Your task to perform on an android device: Open Chrome and go to settings Image 0: 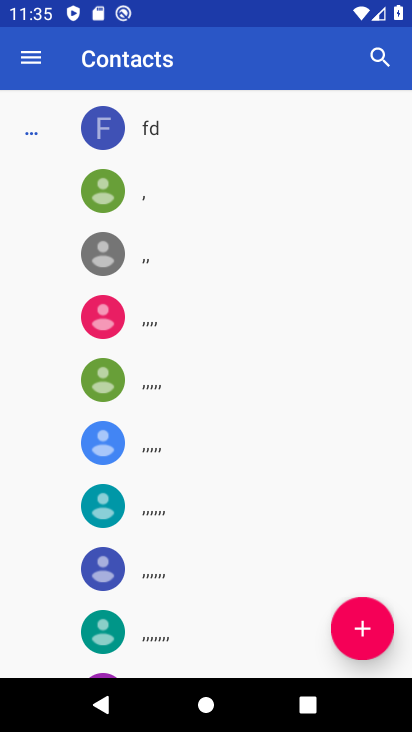
Step 0: press home button
Your task to perform on an android device: Open Chrome and go to settings Image 1: 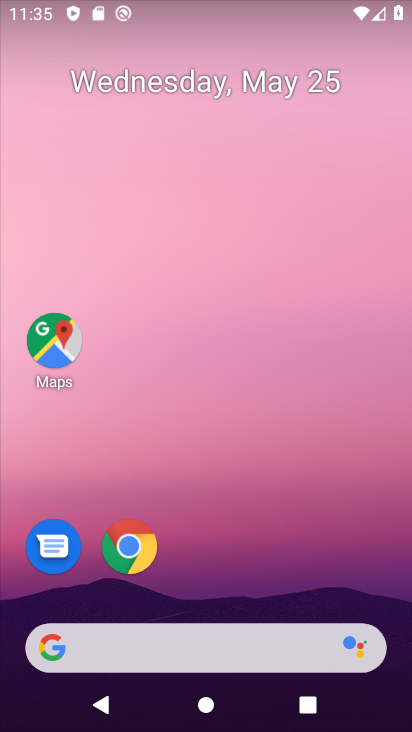
Step 1: click (135, 542)
Your task to perform on an android device: Open Chrome and go to settings Image 2: 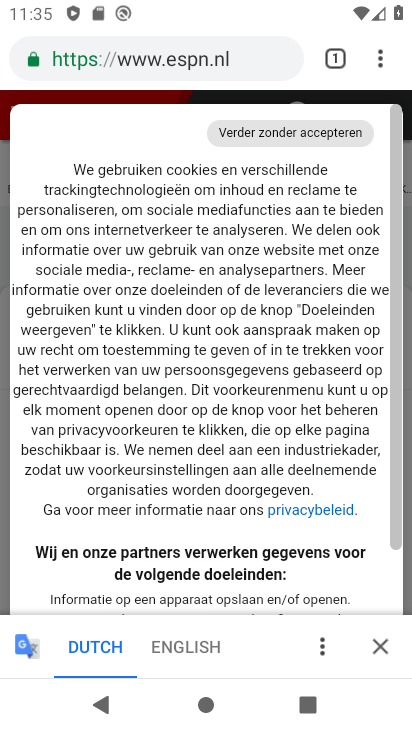
Step 2: click (390, 47)
Your task to perform on an android device: Open Chrome and go to settings Image 3: 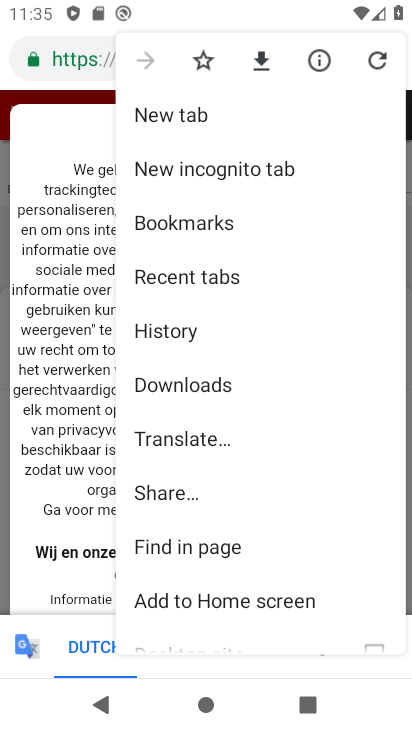
Step 3: drag from (223, 583) to (239, 77)
Your task to perform on an android device: Open Chrome and go to settings Image 4: 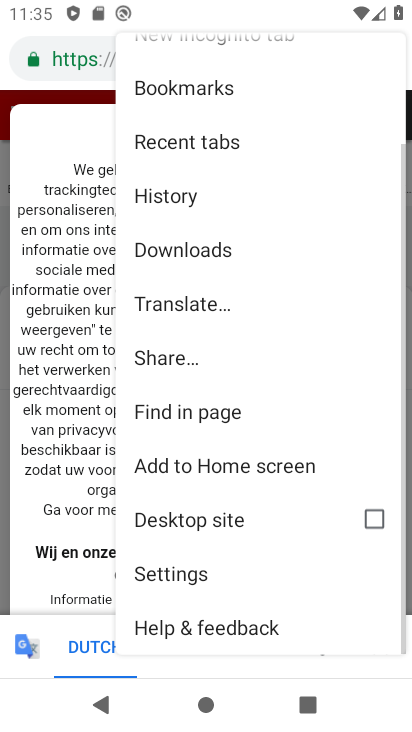
Step 4: click (232, 581)
Your task to perform on an android device: Open Chrome and go to settings Image 5: 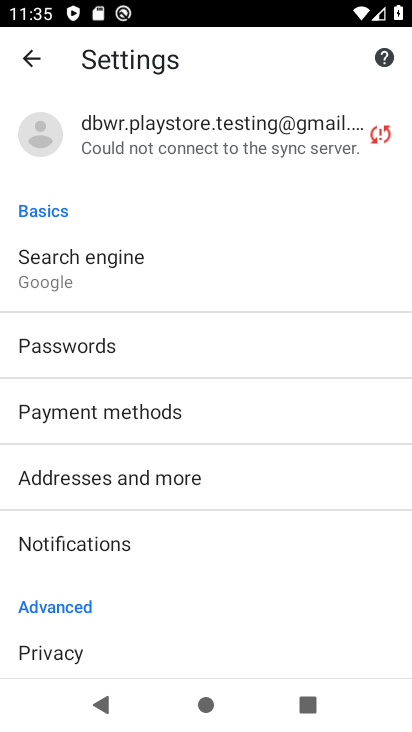
Step 5: task complete